Your task to perform on an android device: Go to Yahoo.com Image 0: 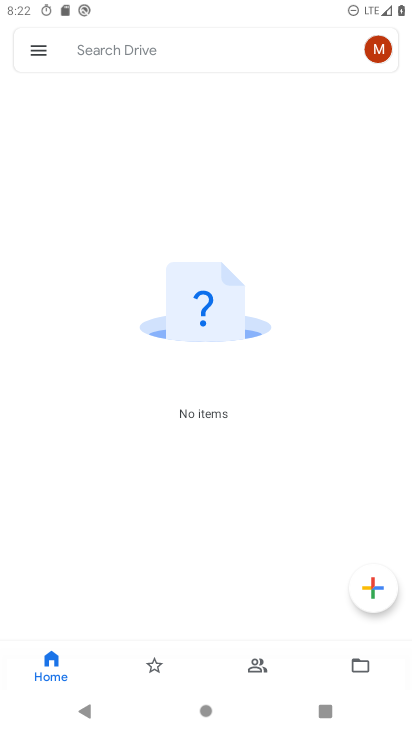
Step 0: press home button
Your task to perform on an android device: Go to Yahoo.com Image 1: 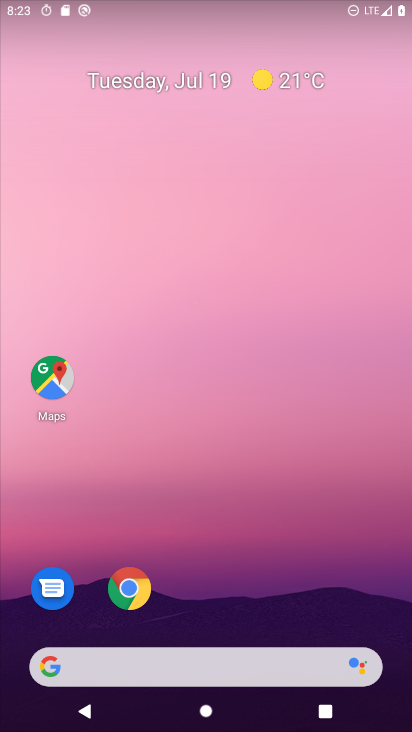
Step 1: drag from (290, 595) to (328, 159)
Your task to perform on an android device: Go to Yahoo.com Image 2: 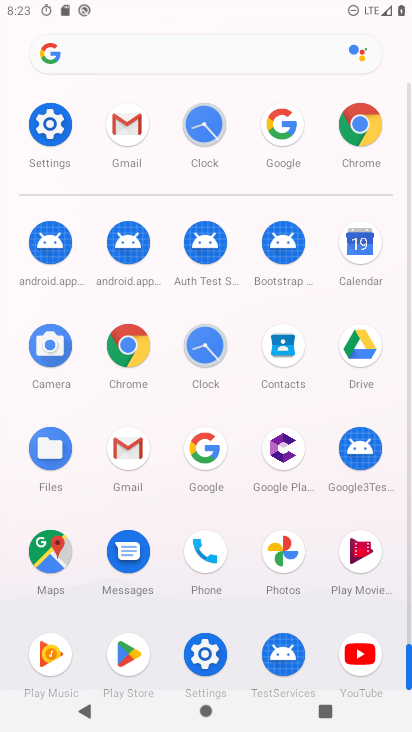
Step 2: click (137, 357)
Your task to perform on an android device: Go to Yahoo.com Image 3: 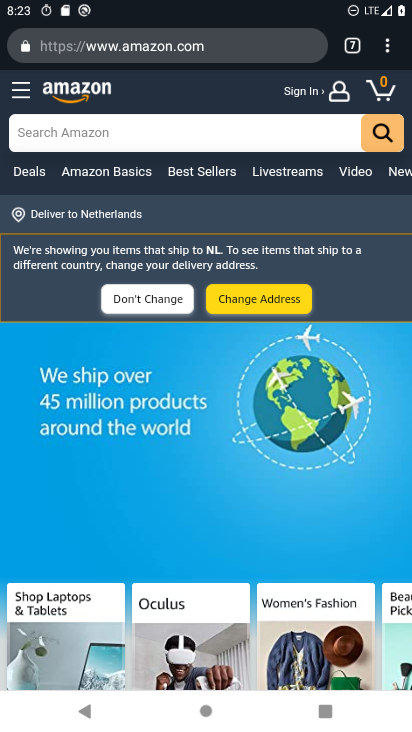
Step 3: click (361, 49)
Your task to perform on an android device: Go to Yahoo.com Image 4: 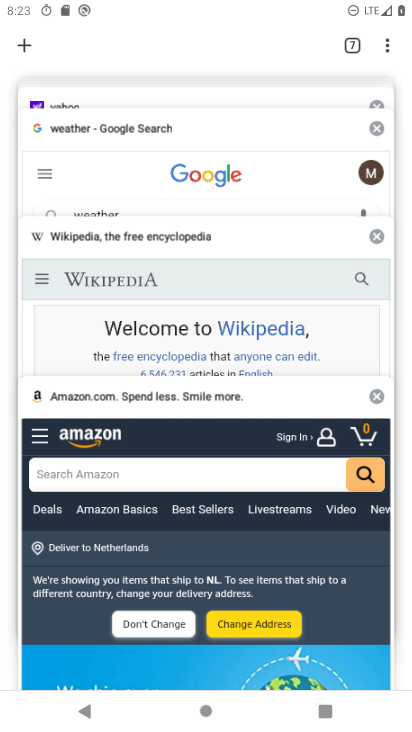
Step 4: drag from (189, 166) to (217, 502)
Your task to perform on an android device: Go to Yahoo.com Image 5: 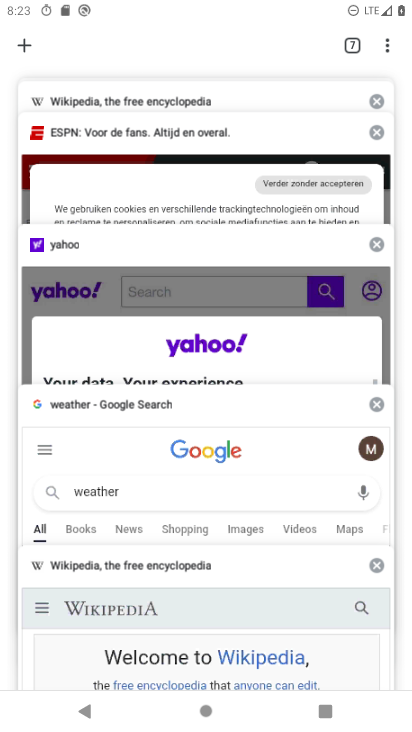
Step 5: click (135, 295)
Your task to perform on an android device: Go to Yahoo.com Image 6: 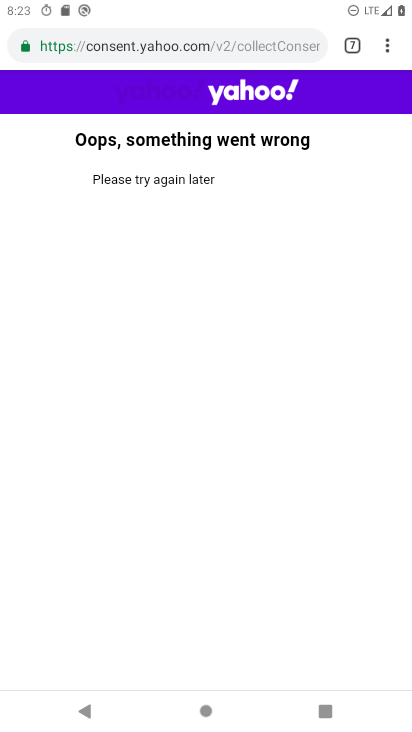
Step 6: task complete